Your task to perform on an android device: change the clock display to digital Image 0: 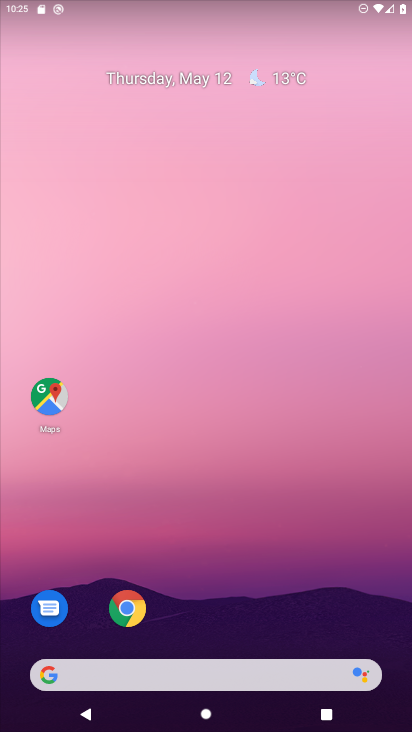
Step 0: drag from (212, 544) to (213, 67)
Your task to perform on an android device: change the clock display to digital Image 1: 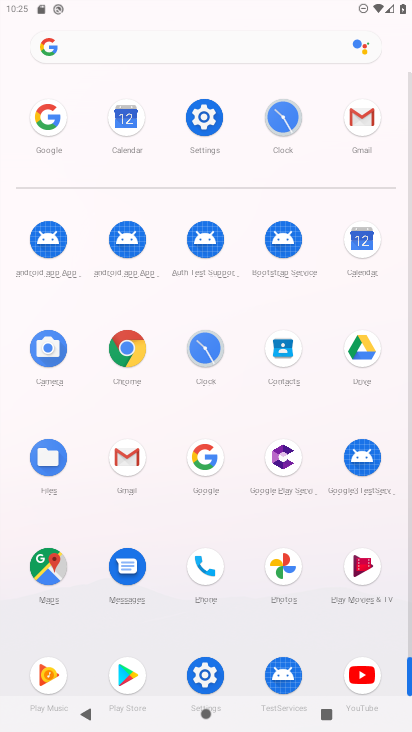
Step 1: click (281, 119)
Your task to perform on an android device: change the clock display to digital Image 2: 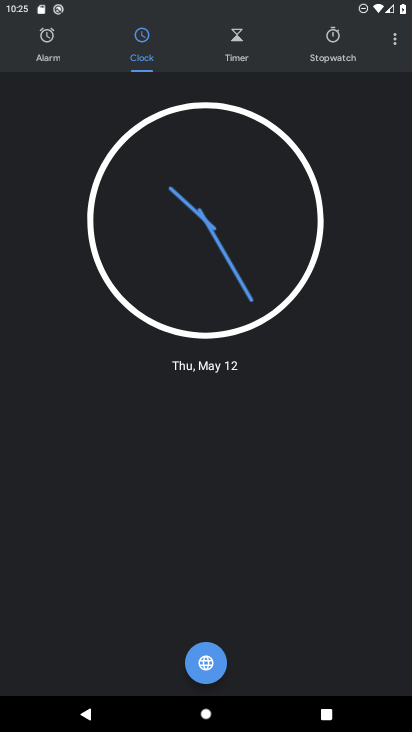
Step 2: click (381, 28)
Your task to perform on an android device: change the clock display to digital Image 3: 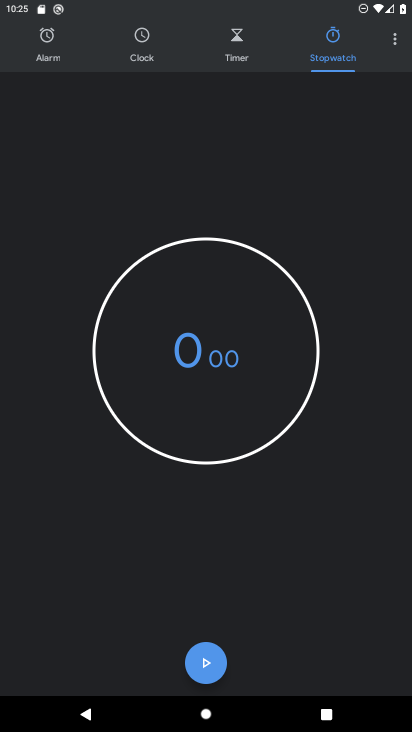
Step 3: click (386, 38)
Your task to perform on an android device: change the clock display to digital Image 4: 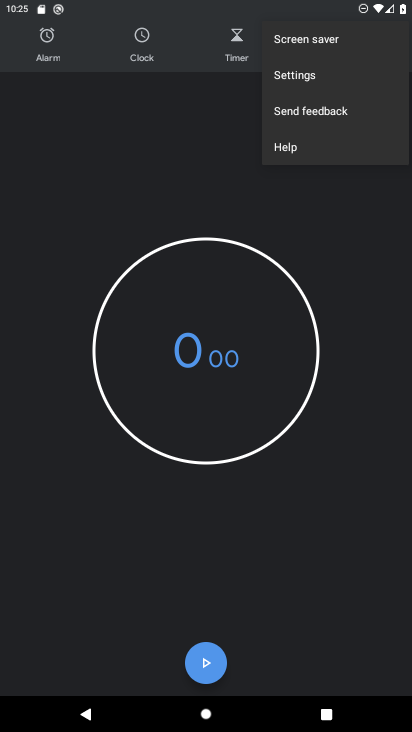
Step 4: click (283, 82)
Your task to perform on an android device: change the clock display to digital Image 5: 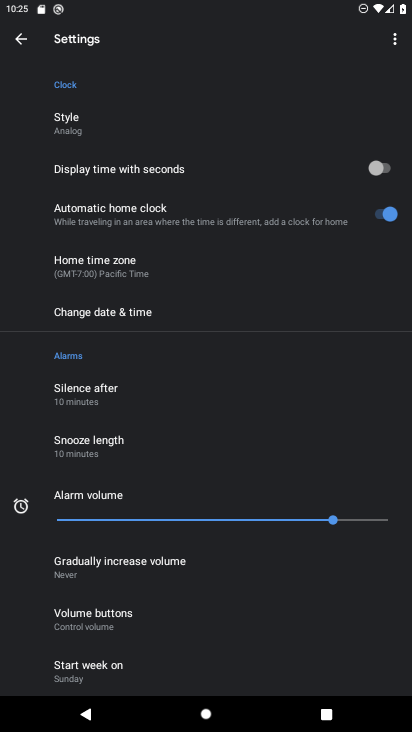
Step 5: click (98, 112)
Your task to perform on an android device: change the clock display to digital Image 6: 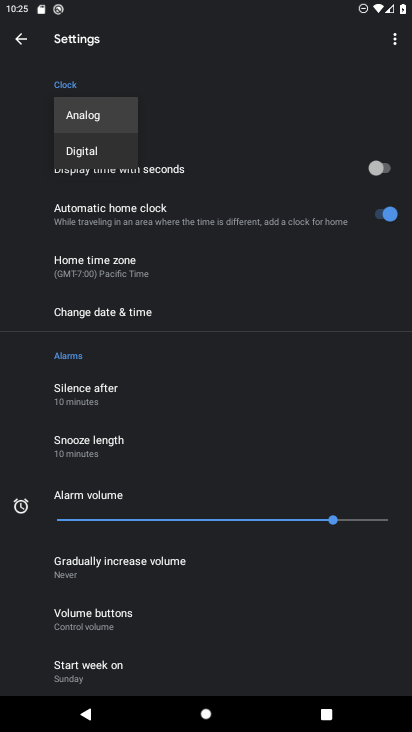
Step 6: click (100, 151)
Your task to perform on an android device: change the clock display to digital Image 7: 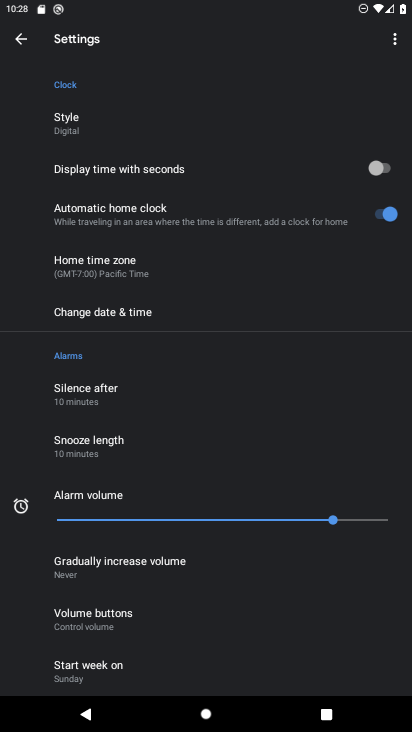
Step 7: task complete